Your task to perform on an android device: open sync settings in chrome Image 0: 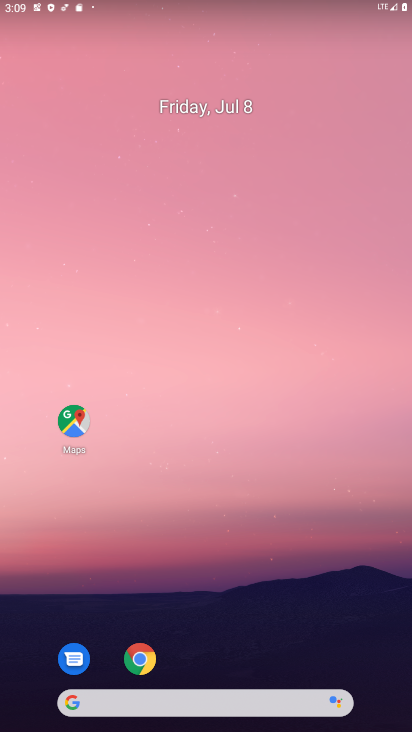
Step 0: click (151, 653)
Your task to perform on an android device: open sync settings in chrome Image 1: 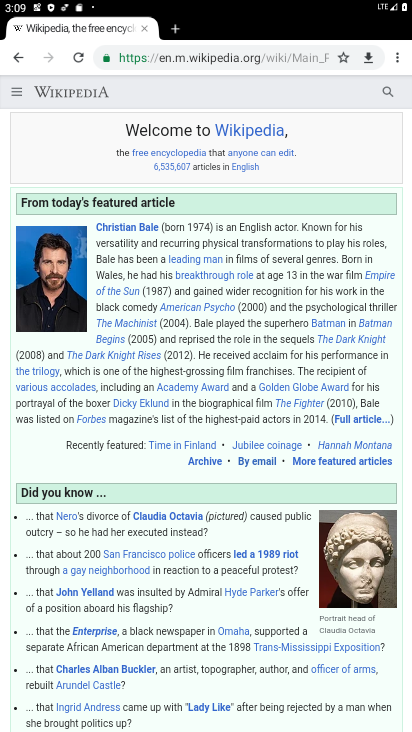
Step 1: click (397, 59)
Your task to perform on an android device: open sync settings in chrome Image 2: 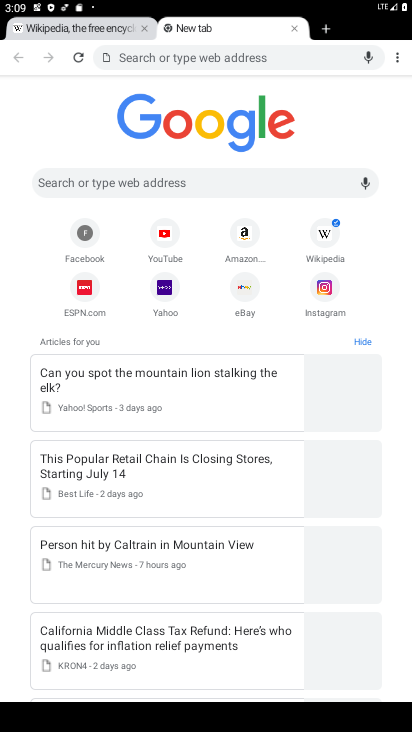
Step 2: drag from (396, 63) to (303, 264)
Your task to perform on an android device: open sync settings in chrome Image 3: 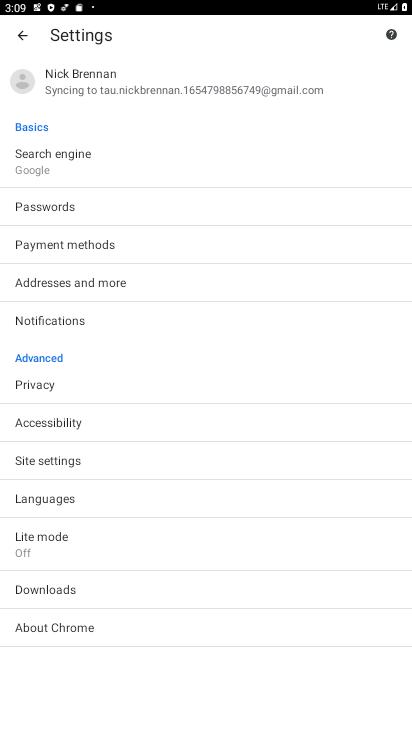
Step 3: click (157, 90)
Your task to perform on an android device: open sync settings in chrome Image 4: 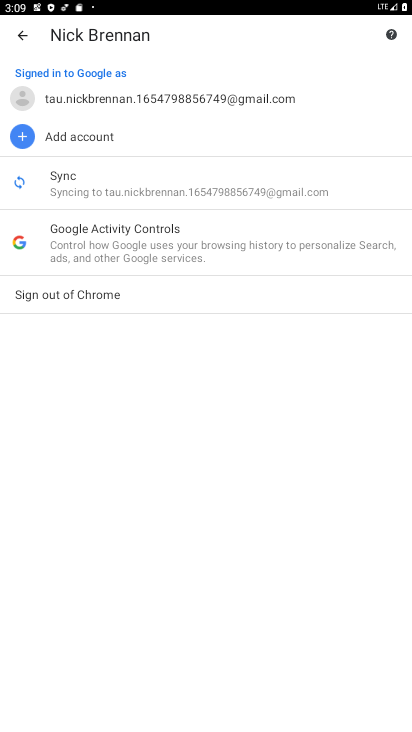
Step 4: click (86, 180)
Your task to perform on an android device: open sync settings in chrome Image 5: 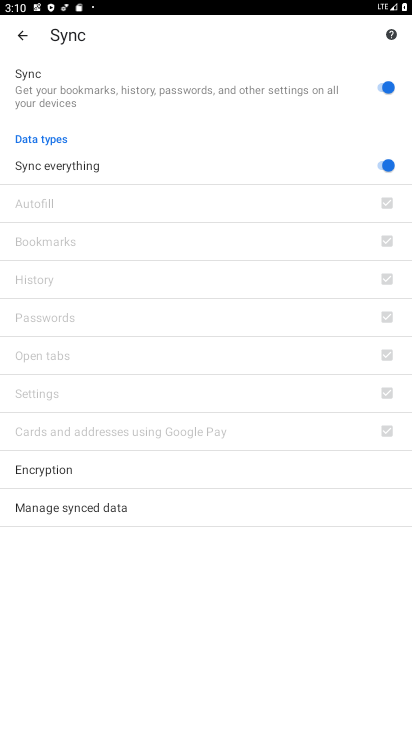
Step 5: task complete